Your task to perform on an android device: Go to Google Image 0: 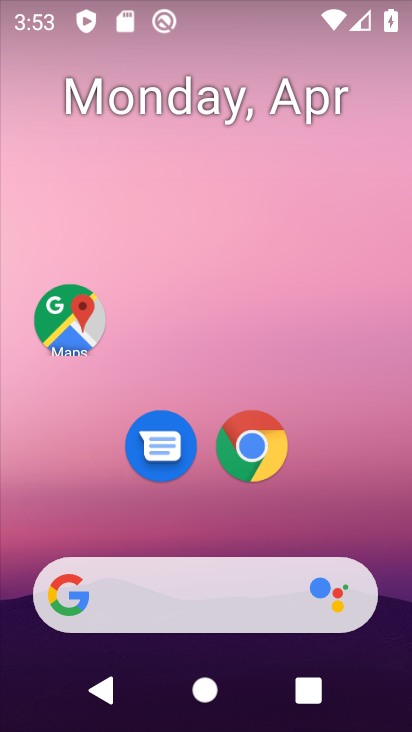
Step 0: drag from (355, 433) to (340, 44)
Your task to perform on an android device: Go to Google Image 1: 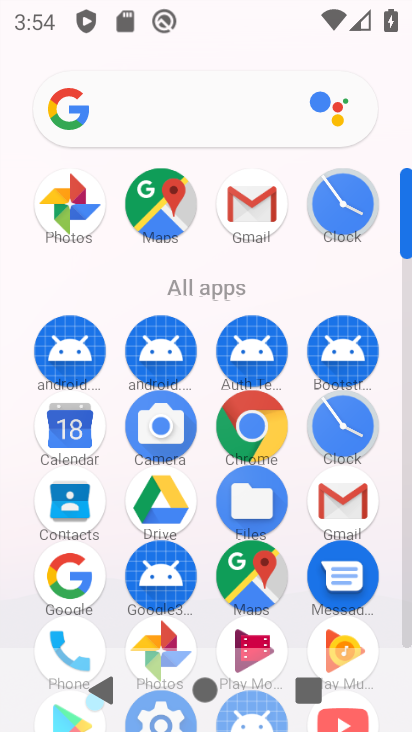
Step 1: drag from (383, 612) to (403, 356)
Your task to perform on an android device: Go to Google Image 2: 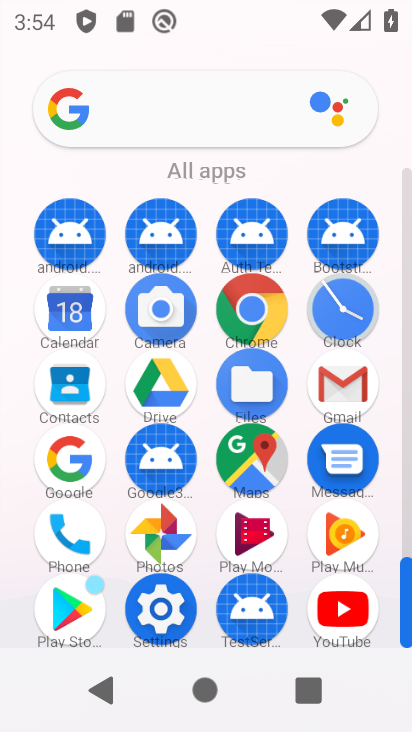
Step 2: click (75, 448)
Your task to perform on an android device: Go to Google Image 3: 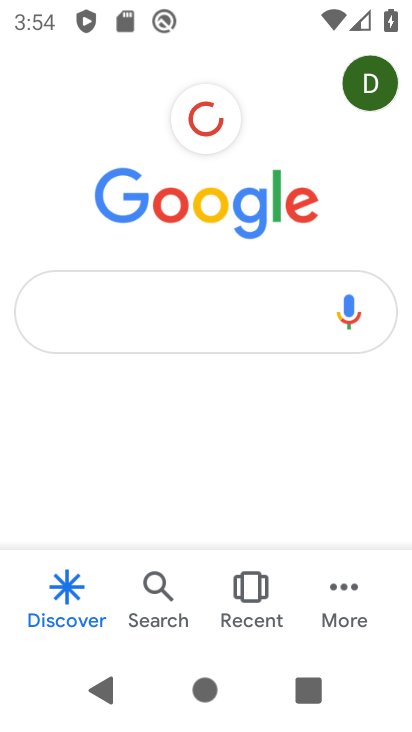
Step 3: task complete